Your task to perform on an android device: change the upload size in google photos Image 0: 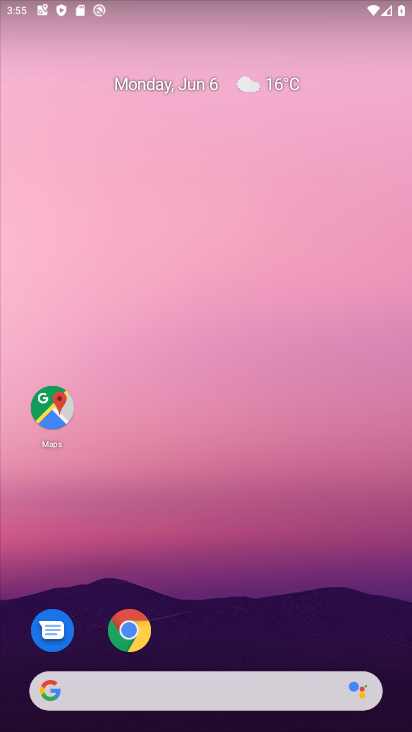
Step 0: drag from (228, 522) to (234, 152)
Your task to perform on an android device: change the upload size in google photos Image 1: 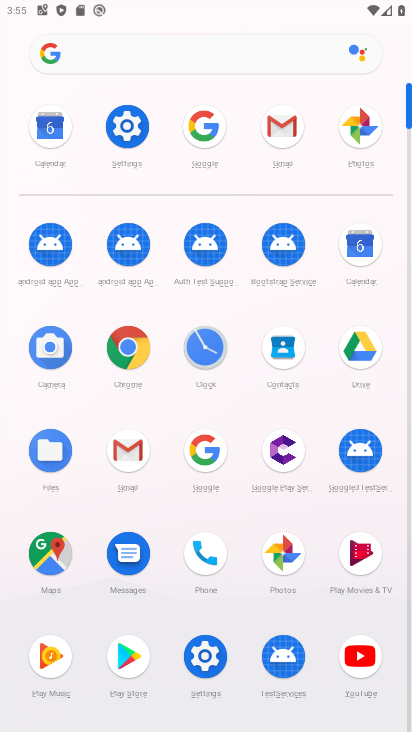
Step 1: click (287, 543)
Your task to perform on an android device: change the upload size in google photos Image 2: 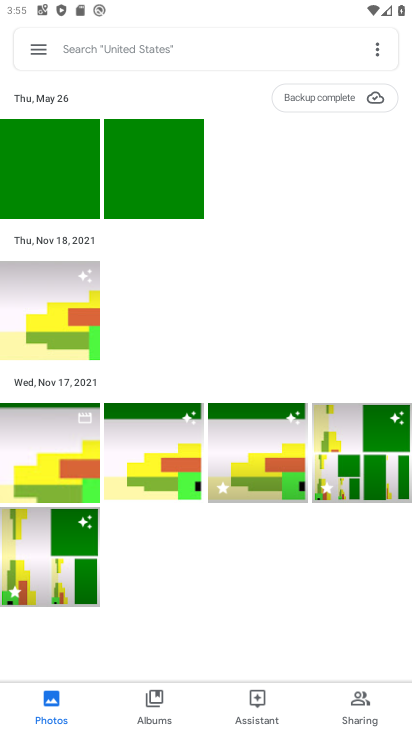
Step 2: click (29, 45)
Your task to perform on an android device: change the upload size in google photos Image 3: 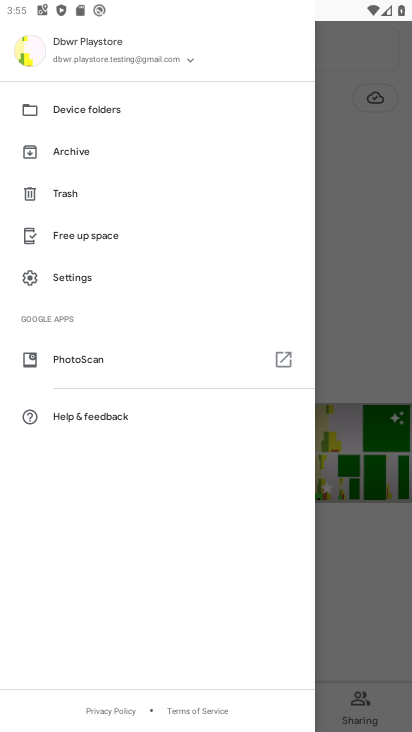
Step 3: click (85, 276)
Your task to perform on an android device: change the upload size in google photos Image 4: 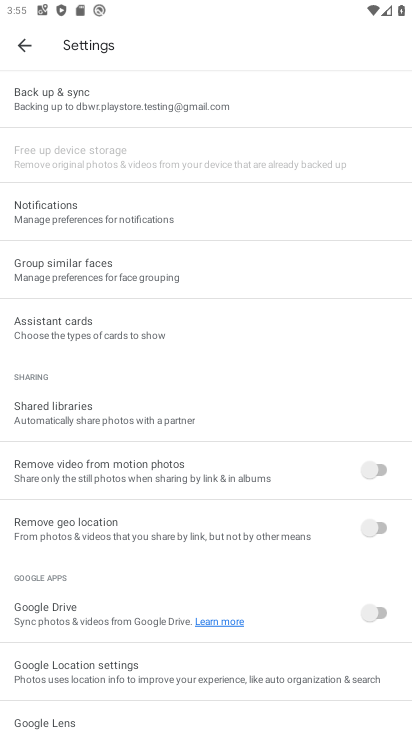
Step 4: drag from (240, 604) to (276, 693)
Your task to perform on an android device: change the upload size in google photos Image 5: 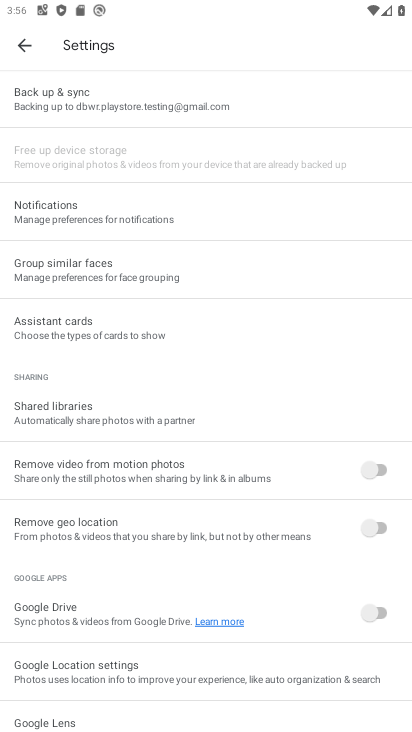
Step 5: click (105, 94)
Your task to perform on an android device: change the upload size in google photos Image 6: 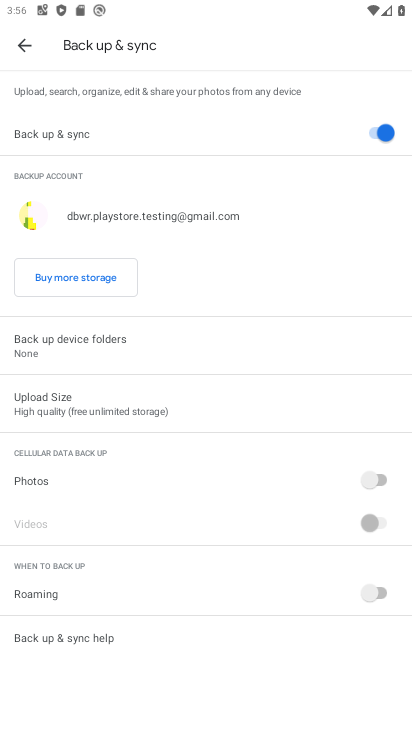
Step 6: click (56, 414)
Your task to perform on an android device: change the upload size in google photos Image 7: 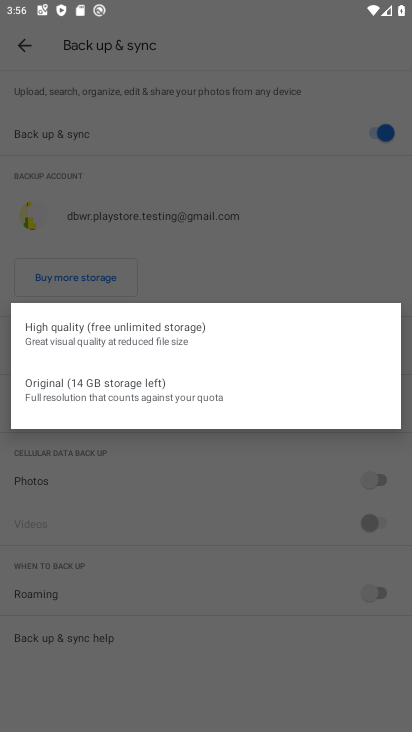
Step 7: click (83, 384)
Your task to perform on an android device: change the upload size in google photos Image 8: 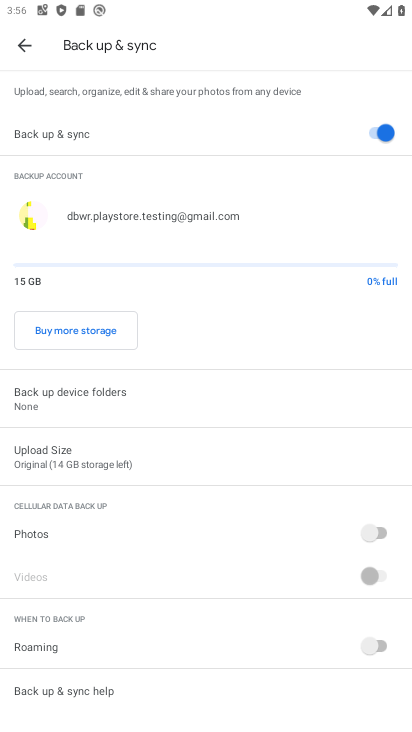
Step 8: task complete